Your task to perform on an android device: Open the web browser Image 0: 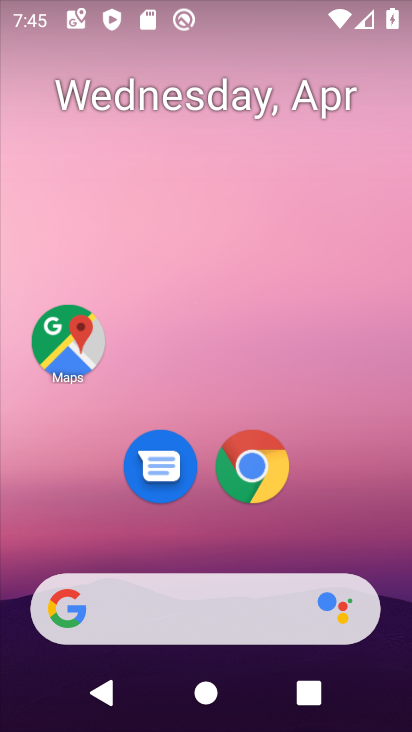
Step 0: click (252, 472)
Your task to perform on an android device: Open the web browser Image 1: 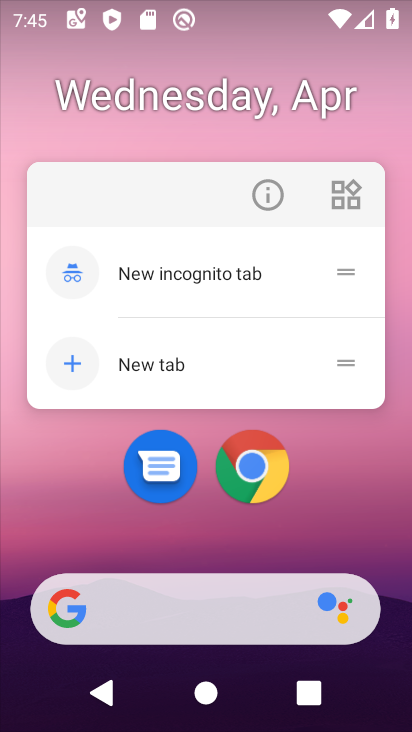
Step 1: click (147, 372)
Your task to perform on an android device: Open the web browser Image 2: 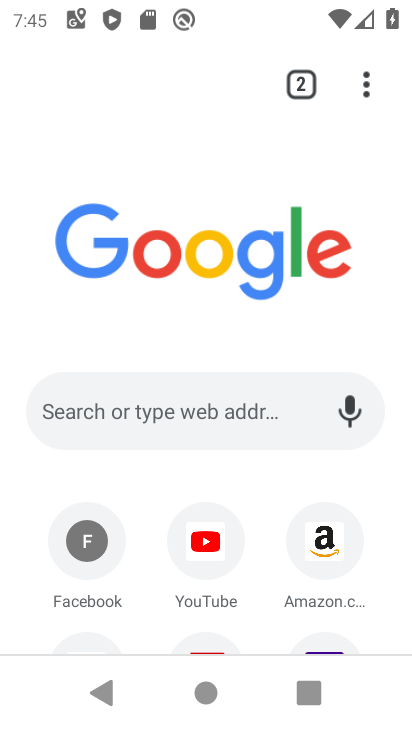
Step 2: task complete